Your task to perform on an android device: Open Google Chrome and open the bookmarks view Image 0: 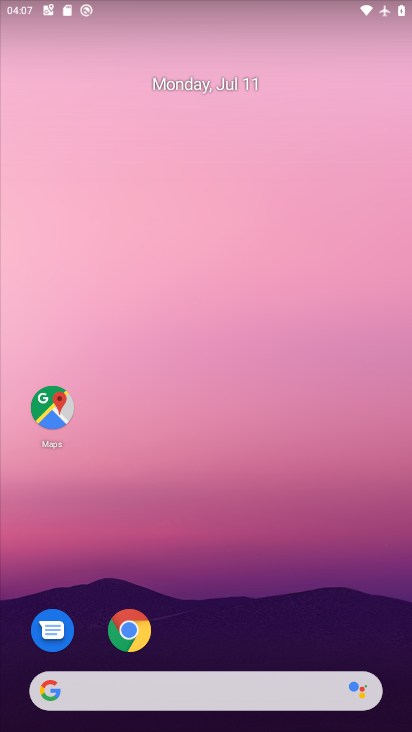
Step 0: drag from (249, 637) to (242, 168)
Your task to perform on an android device: Open Google Chrome and open the bookmarks view Image 1: 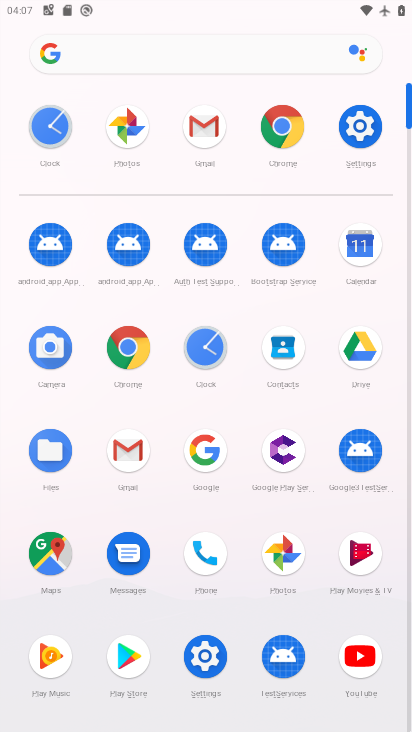
Step 1: click (274, 155)
Your task to perform on an android device: Open Google Chrome and open the bookmarks view Image 2: 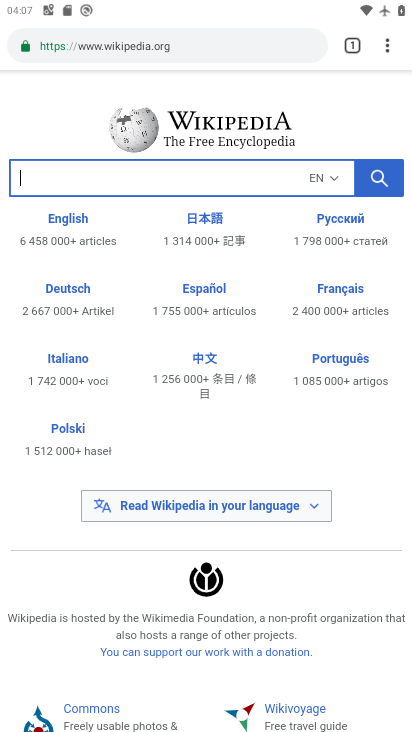
Step 2: click (397, 45)
Your task to perform on an android device: Open Google Chrome and open the bookmarks view Image 3: 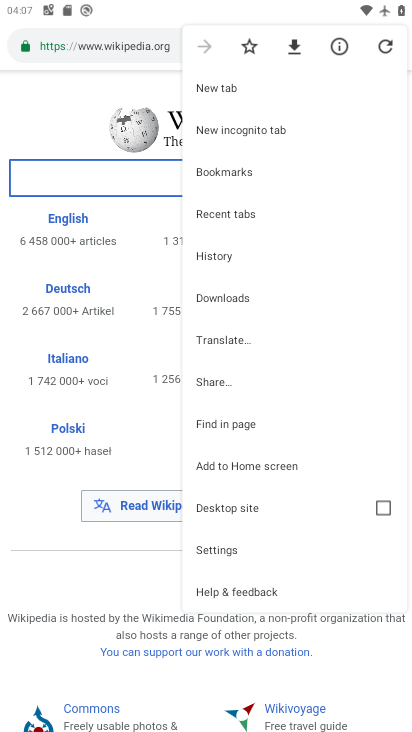
Step 3: click (243, 191)
Your task to perform on an android device: Open Google Chrome and open the bookmarks view Image 4: 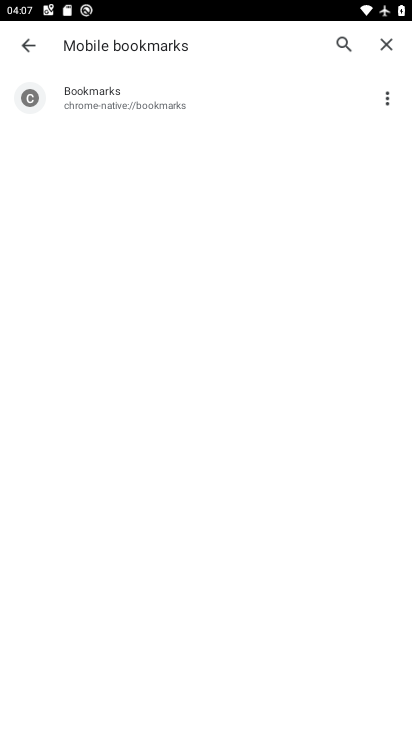
Step 4: task complete